Your task to perform on an android device: move an email to a new category in the gmail app Image 0: 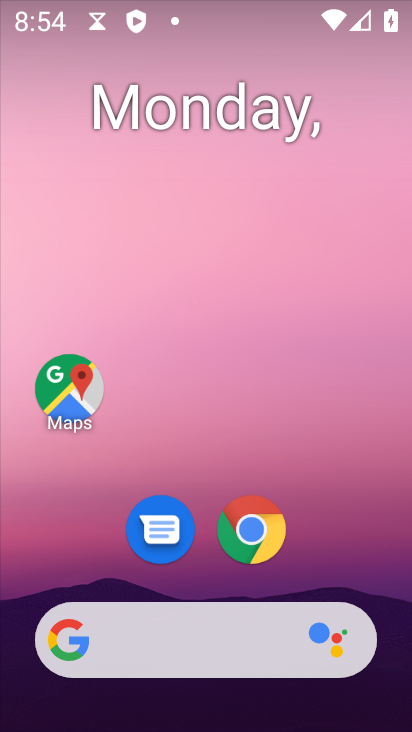
Step 0: drag from (289, 630) to (186, 176)
Your task to perform on an android device: move an email to a new category in the gmail app Image 1: 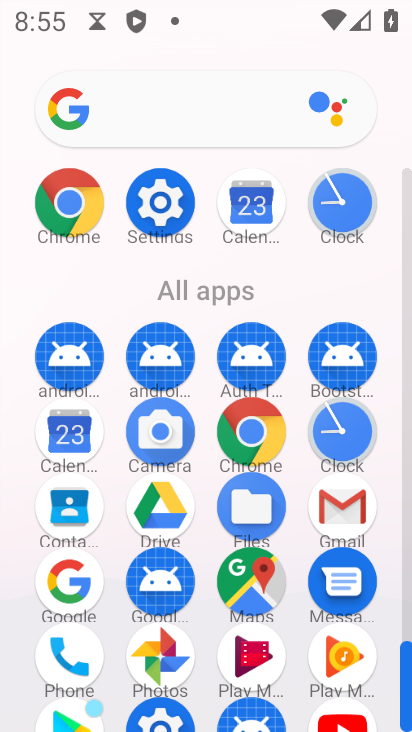
Step 1: click (329, 502)
Your task to perform on an android device: move an email to a new category in the gmail app Image 2: 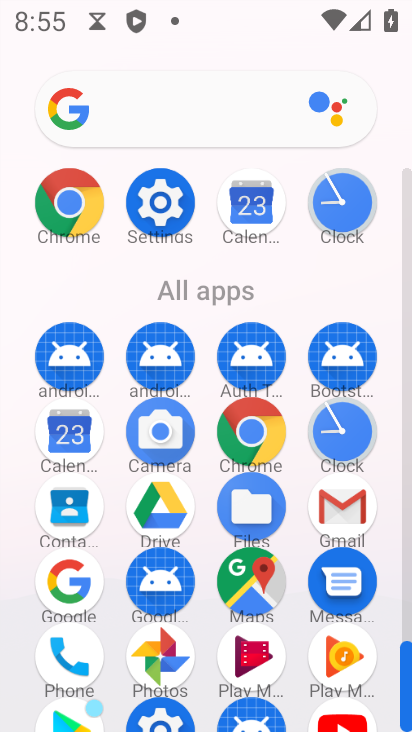
Step 2: click (343, 488)
Your task to perform on an android device: move an email to a new category in the gmail app Image 3: 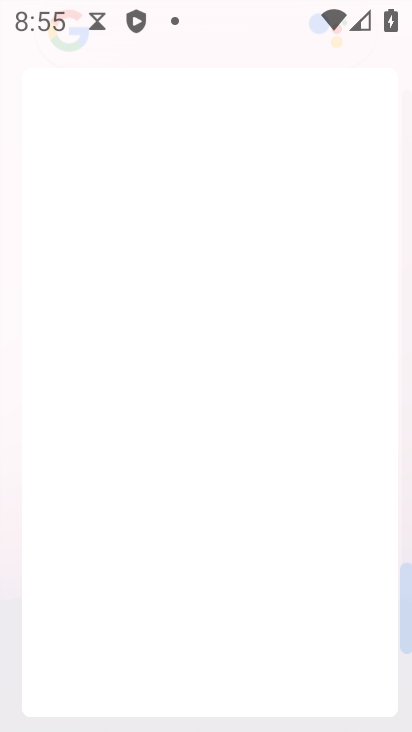
Step 3: click (343, 488)
Your task to perform on an android device: move an email to a new category in the gmail app Image 4: 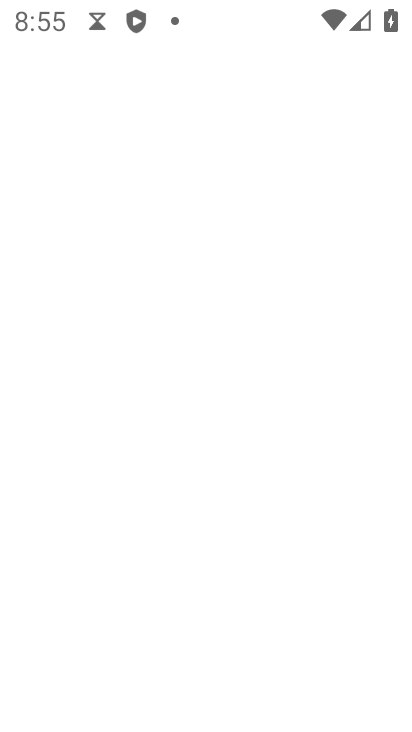
Step 4: click (344, 488)
Your task to perform on an android device: move an email to a new category in the gmail app Image 5: 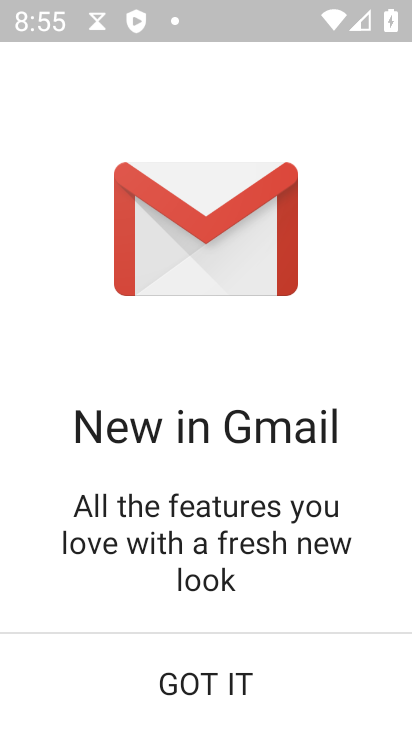
Step 5: click (228, 680)
Your task to perform on an android device: move an email to a new category in the gmail app Image 6: 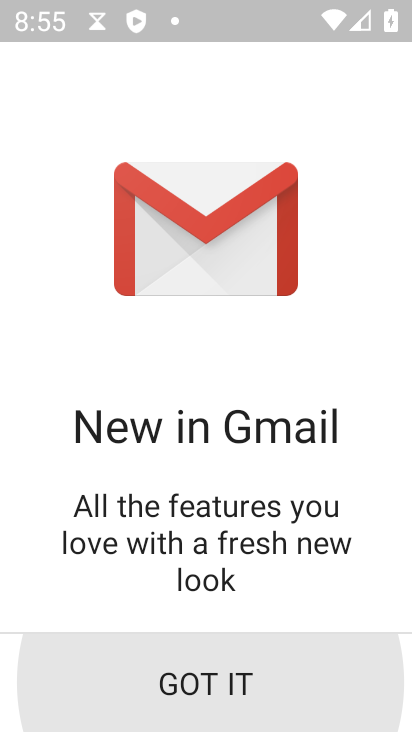
Step 6: click (228, 680)
Your task to perform on an android device: move an email to a new category in the gmail app Image 7: 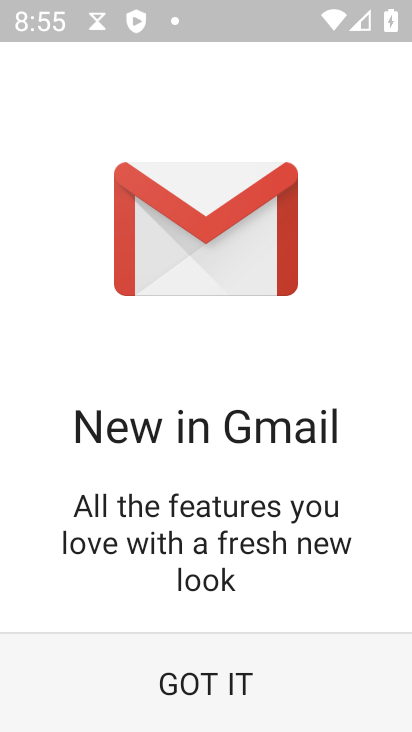
Step 7: click (228, 680)
Your task to perform on an android device: move an email to a new category in the gmail app Image 8: 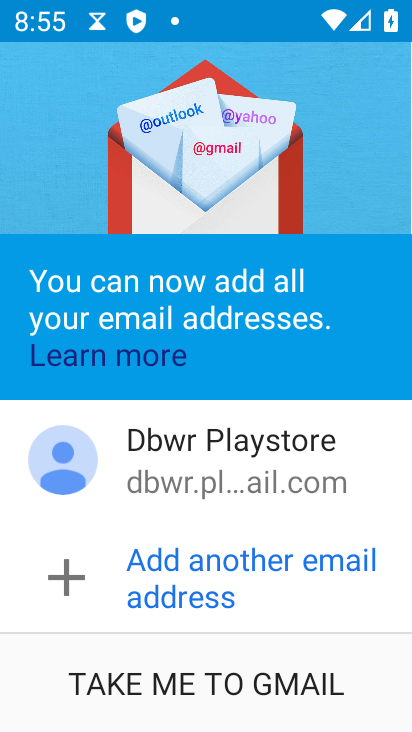
Step 8: click (191, 678)
Your task to perform on an android device: move an email to a new category in the gmail app Image 9: 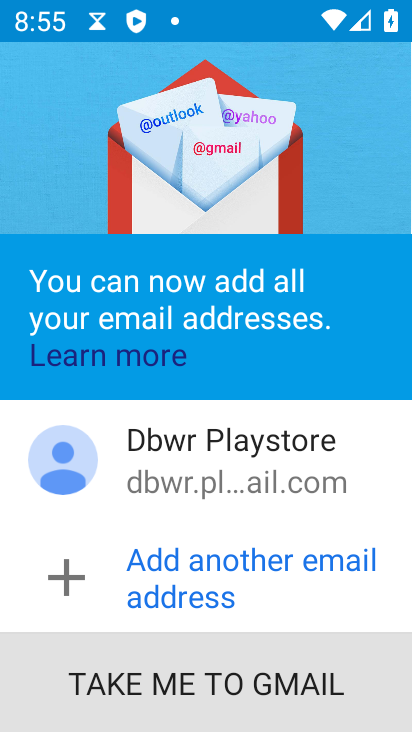
Step 9: click (196, 674)
Your task to perform on an android device: move an email to a new category in the gmail app Image 10: 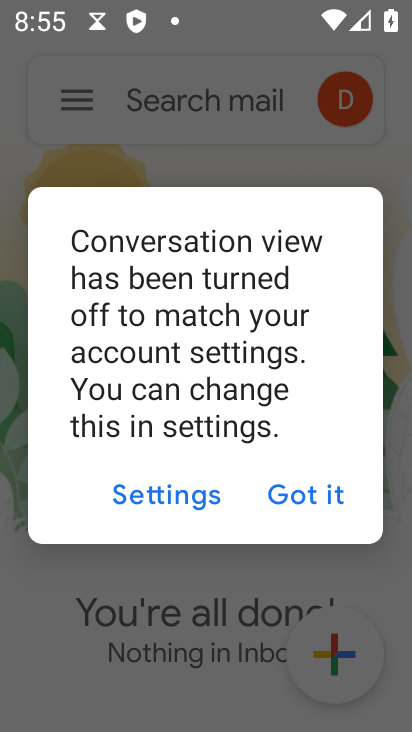
Step 10: click (211, 571)
Your task to perform on an android device: move an email to a new category in the gmail app Image 11: 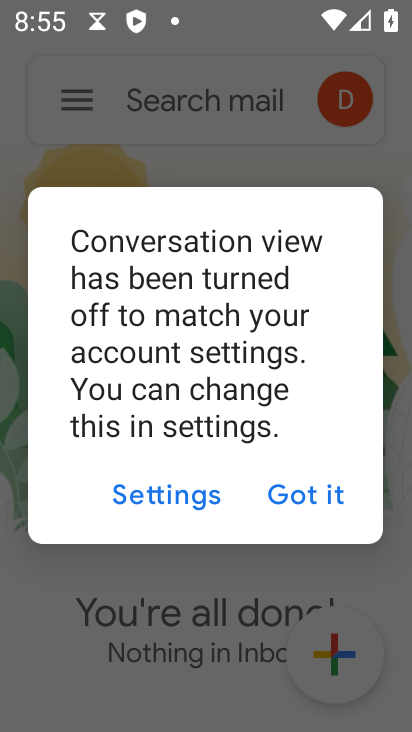
Step 11: press back button
Your task to perform on an android device: move an email to a new category in the gmail app Image 12: 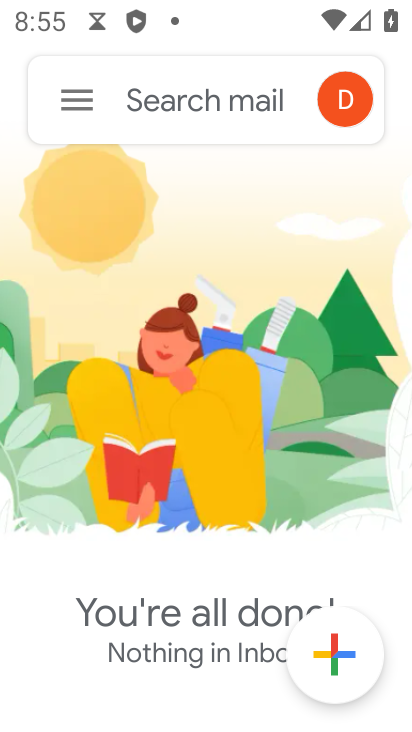
Step 12: click (80, 100)
Your task to perform on an android device: move an email to a new category in the gmail app Image 13: 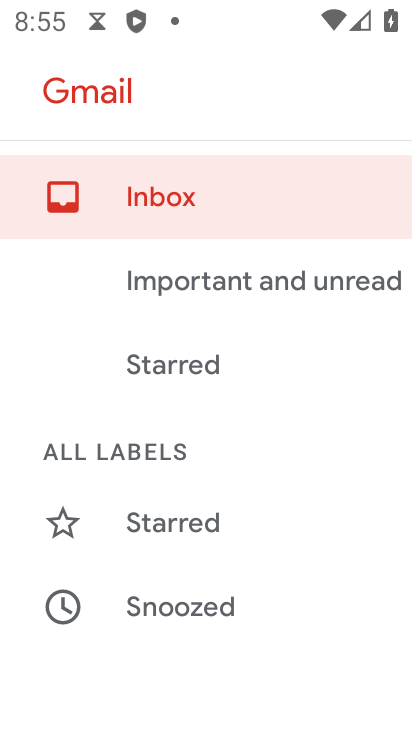
Step 13: drag from (181, 578) to (142, 209)
Your task to perform on an android device: move an email to a new category in the gmail app Image 14: 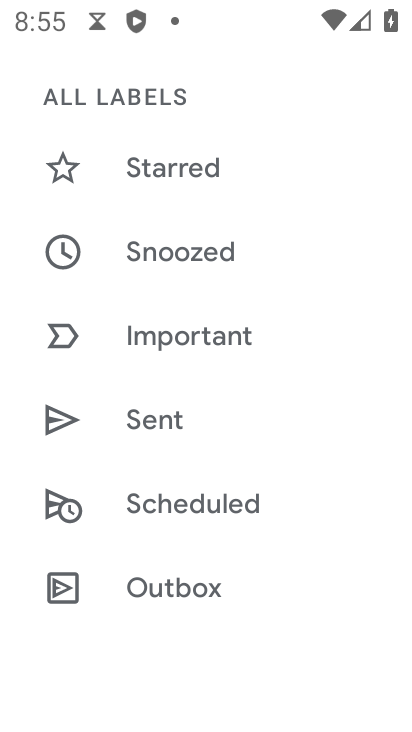
Step 14: drag from (235, 522) to (325, 84)
Your task to perform on an android device: move an email to a new category in the gmail app Image 15: 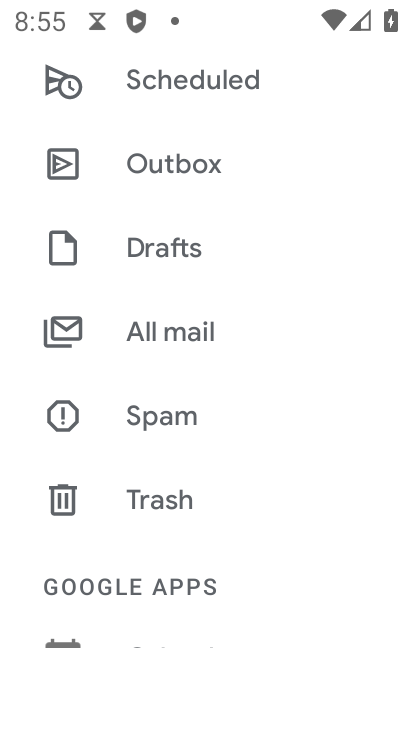
Step 15: drag from (286, 501) to (286, 152)
Your task to perform on an android device: move an email to a new category in the gmail app Image 16: 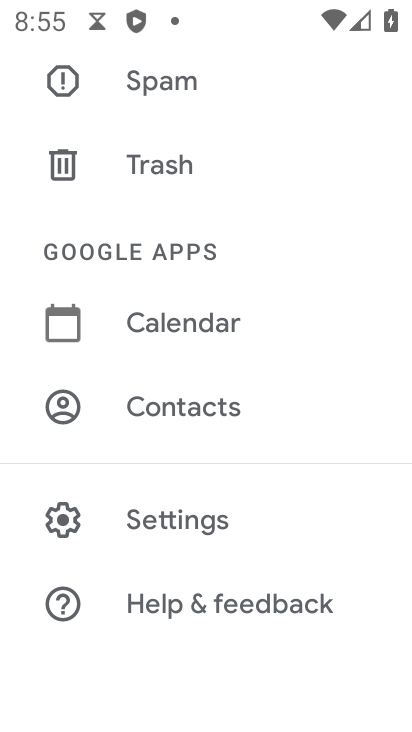
Step 16: drag from (174, 188) to (238, 493)
Your task to perform on an android device: move an email to a new category in the gmail app Image 17: 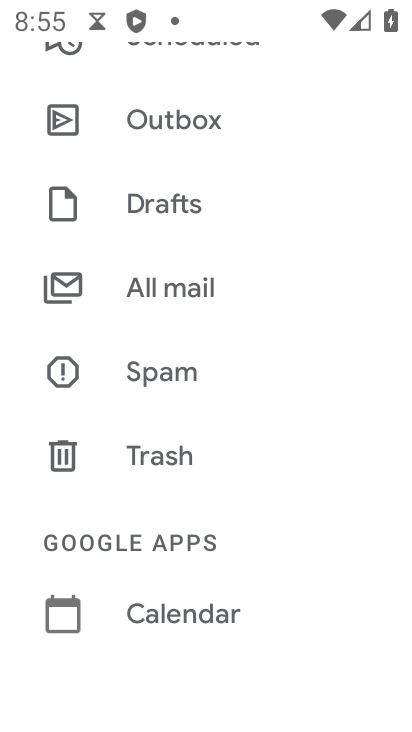
Step 17: drag from (231, 264) to (265, 523)
Your task to perform on an android device: move an email to a new category in the gmail app Image 18: 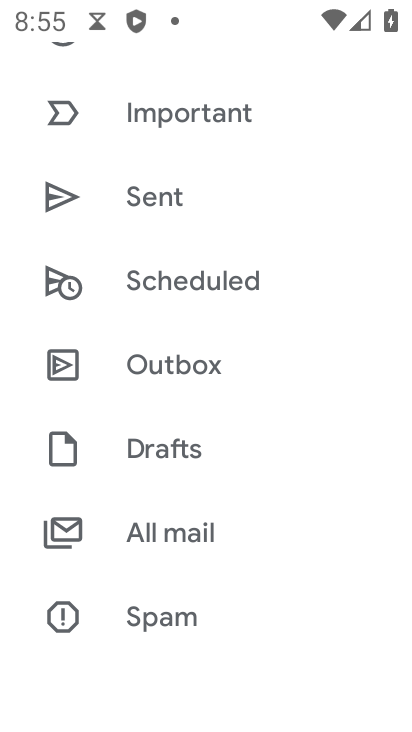
Step 18: click (172, 536)
Your task to perform on an android device: move an email to a new category in the gmail app Image 19: 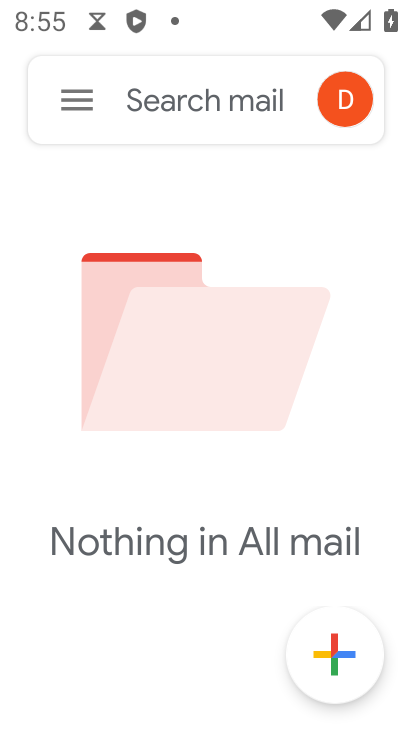
Step 19: task complete